Your task to perform on an android device: Go to Wikipedia Image 0: 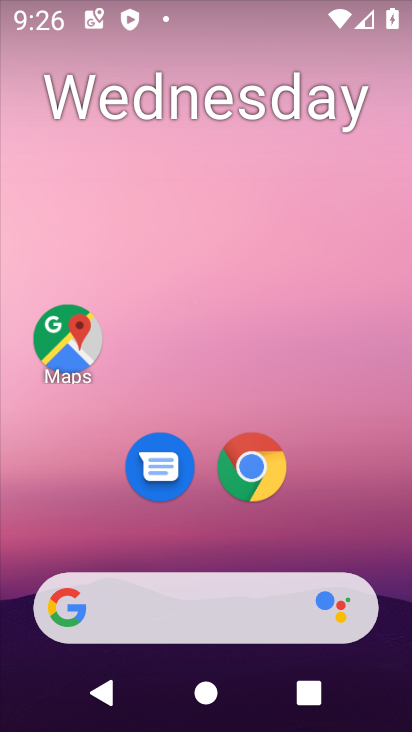
Step 0: click (265, 469)
Your task to perform on an android device: Go to Wikipedia Image 1: 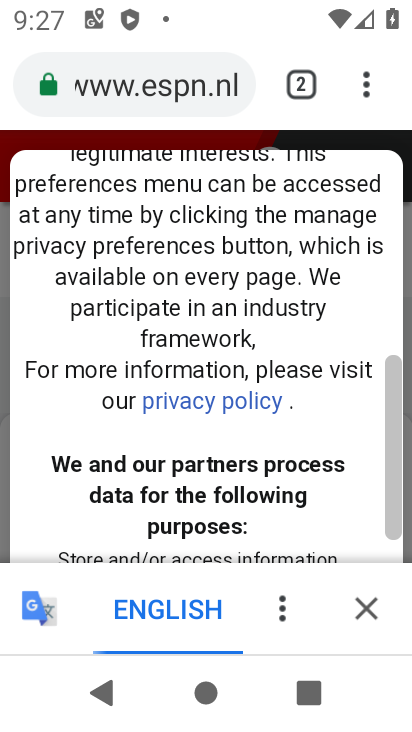
Step 1: click (302, 80)
Your task to perform on an android device: Go to Wikipedia Image 2: 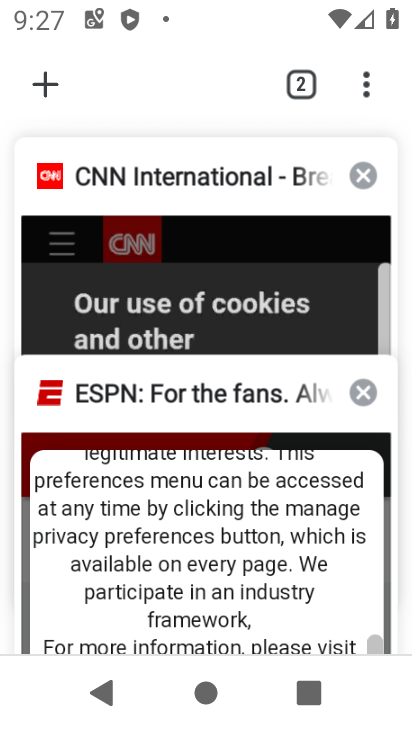
Step 2: click (38, 73)
Your task to perform on an android device: Go to Wikipedia Image 3: 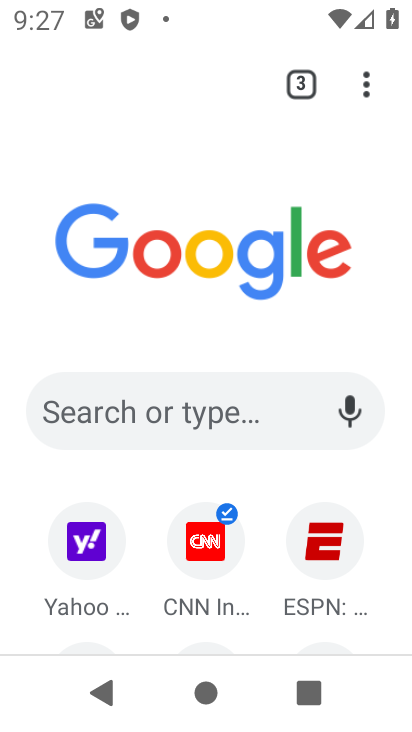
Step 3: drag from (262, 578) to (291, 248)
Your task to perform on an android device: Go to Wikipedia Image 4: 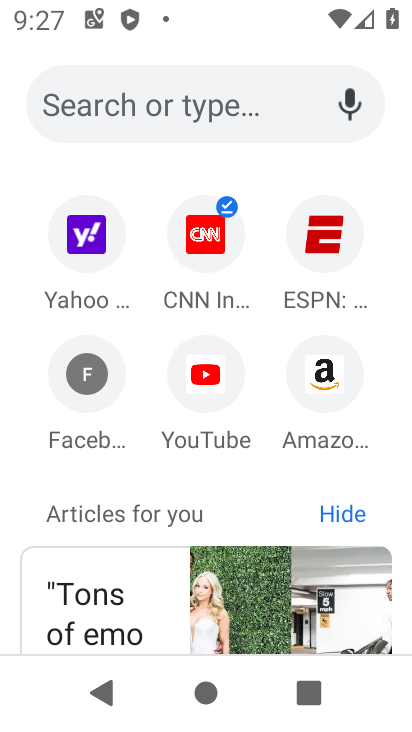
Step 4: click (134, 104)
Your task to perform on an android device: Go to Wikipedia Image 5: 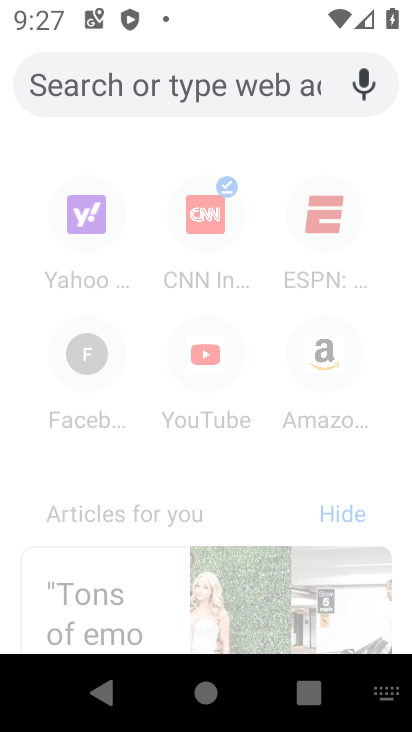
Step 5: type "wikipedia"
Your task to perform on an android device: Go to Wikipedia Image 6: 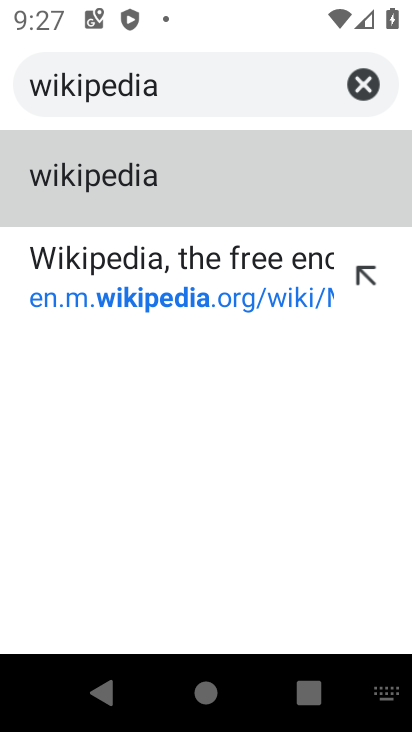
Step 6: click (214, 278)
Your task to perform on an android device: Go to Wikipedia Image 7: 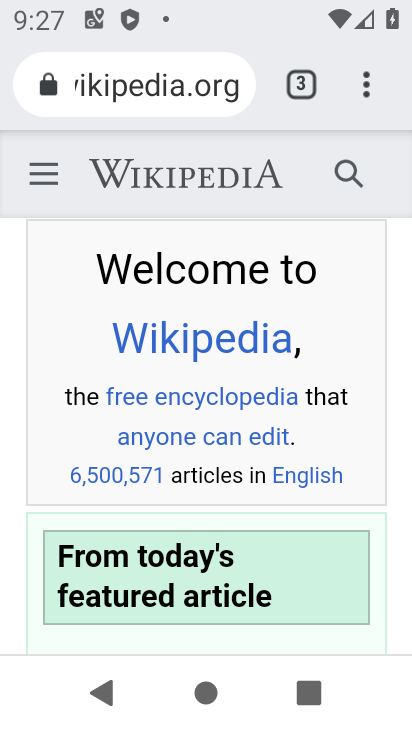
Step 7: task complete